Your task to perform on an android device: open app "AliExpress" Image 0: 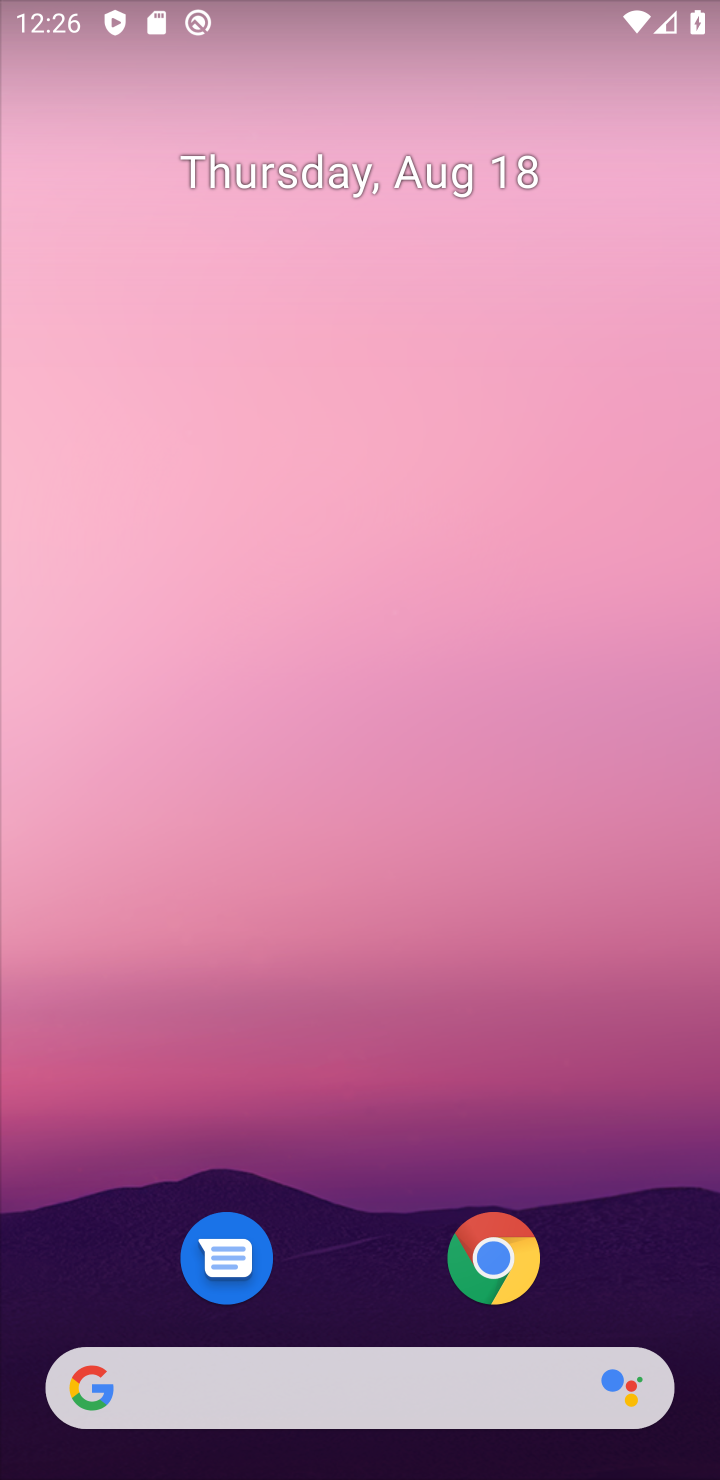
Step 0: drag from (433, 1242) to (424, 760)
Your task to perform on an android device: open app "AliExpress" Image 1: 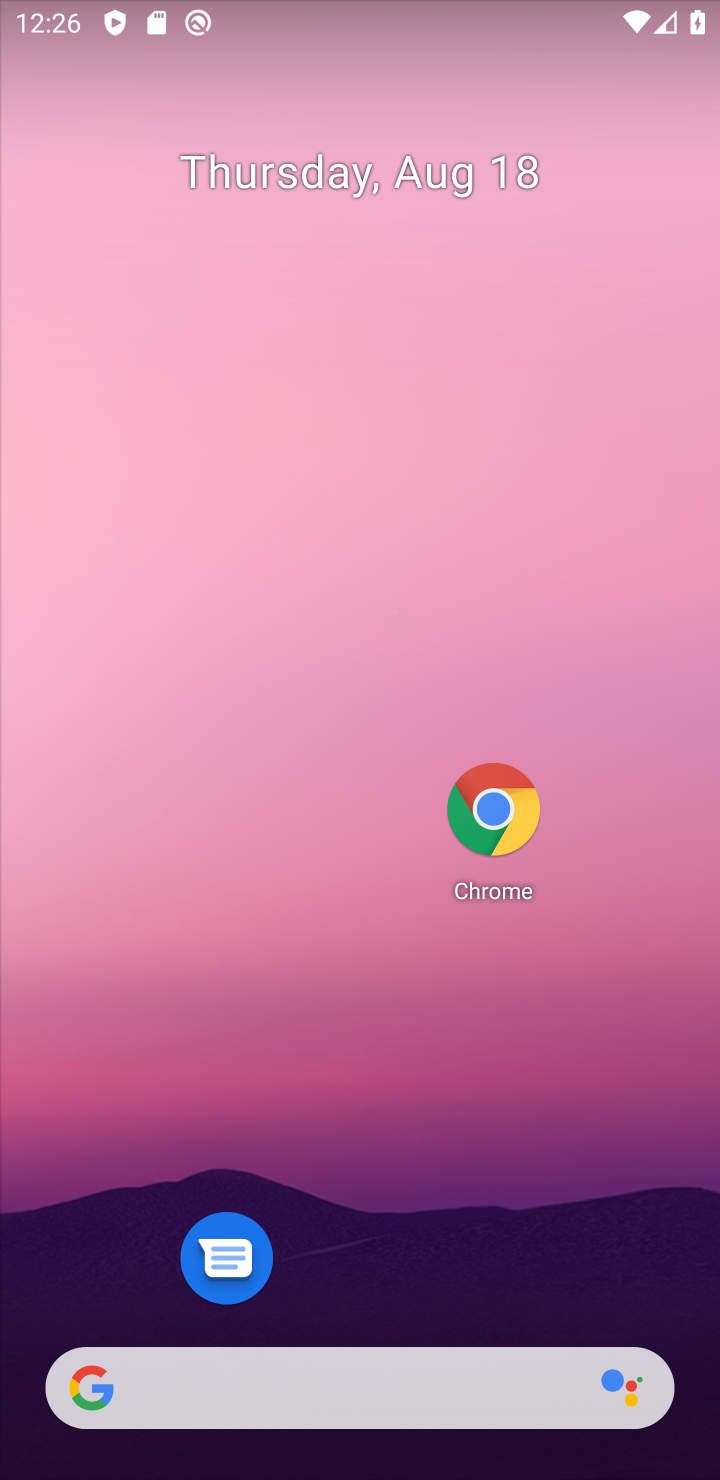
Step 1: drag from (331, 1046) to (352, 532)
Your task to perform on an android device: open app "AliExpress" Image 2: 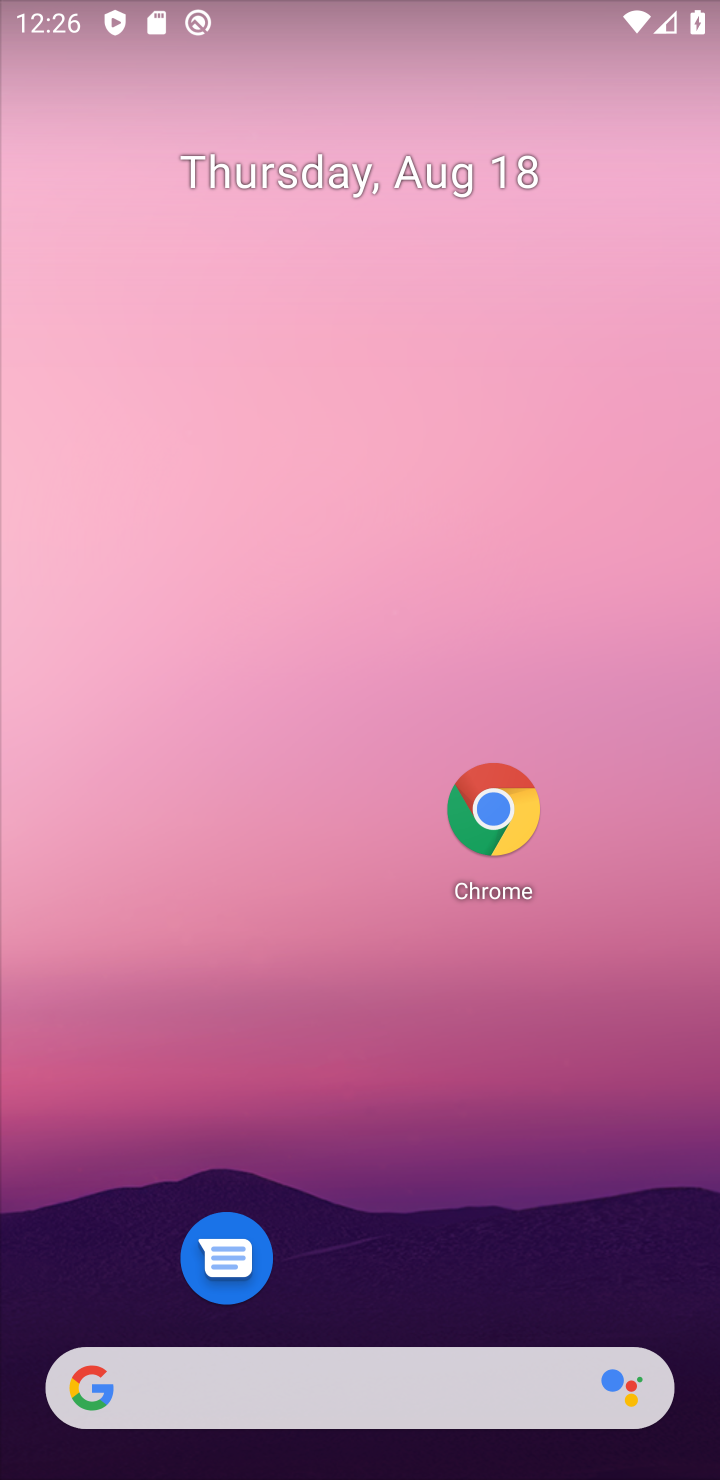
Step 2: drag from (395, 1339) to (261, 630)
Your task to perform on an android device: open app "AliExpress" Image 3: 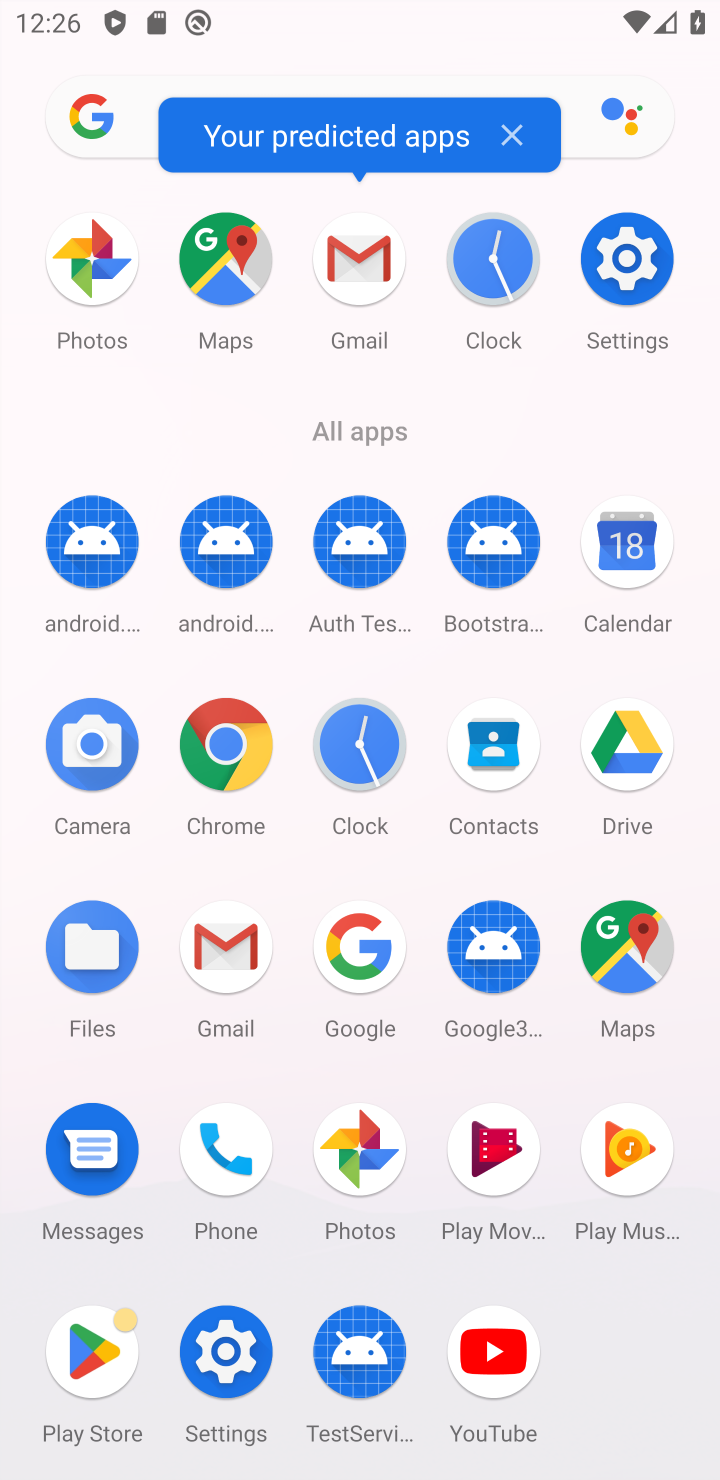
Step 3: click (73, 1352)
Your task to perform on an android device: open app "AliExpress" Image 4: 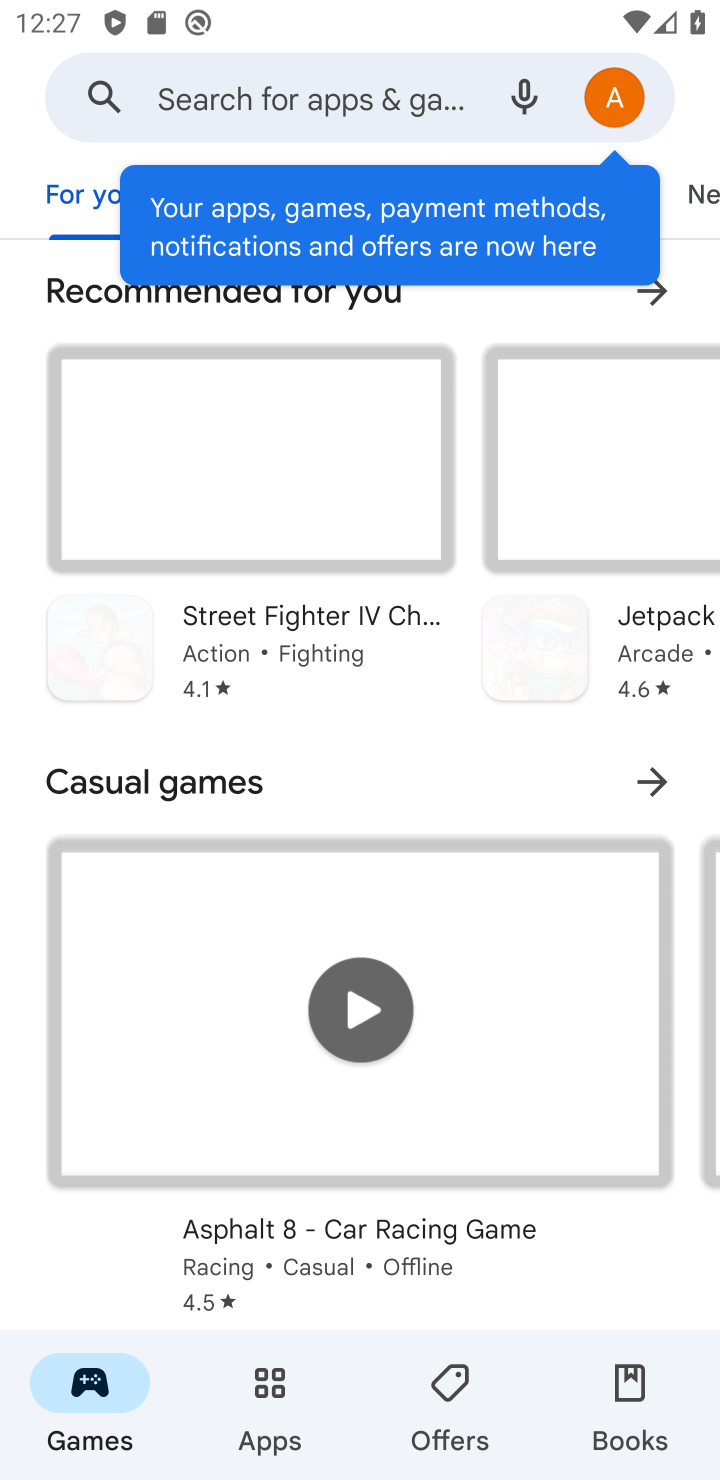
Step 4: click (263, 1374)
Your task to perform on an android device: open app "AliExpress" Image 5: 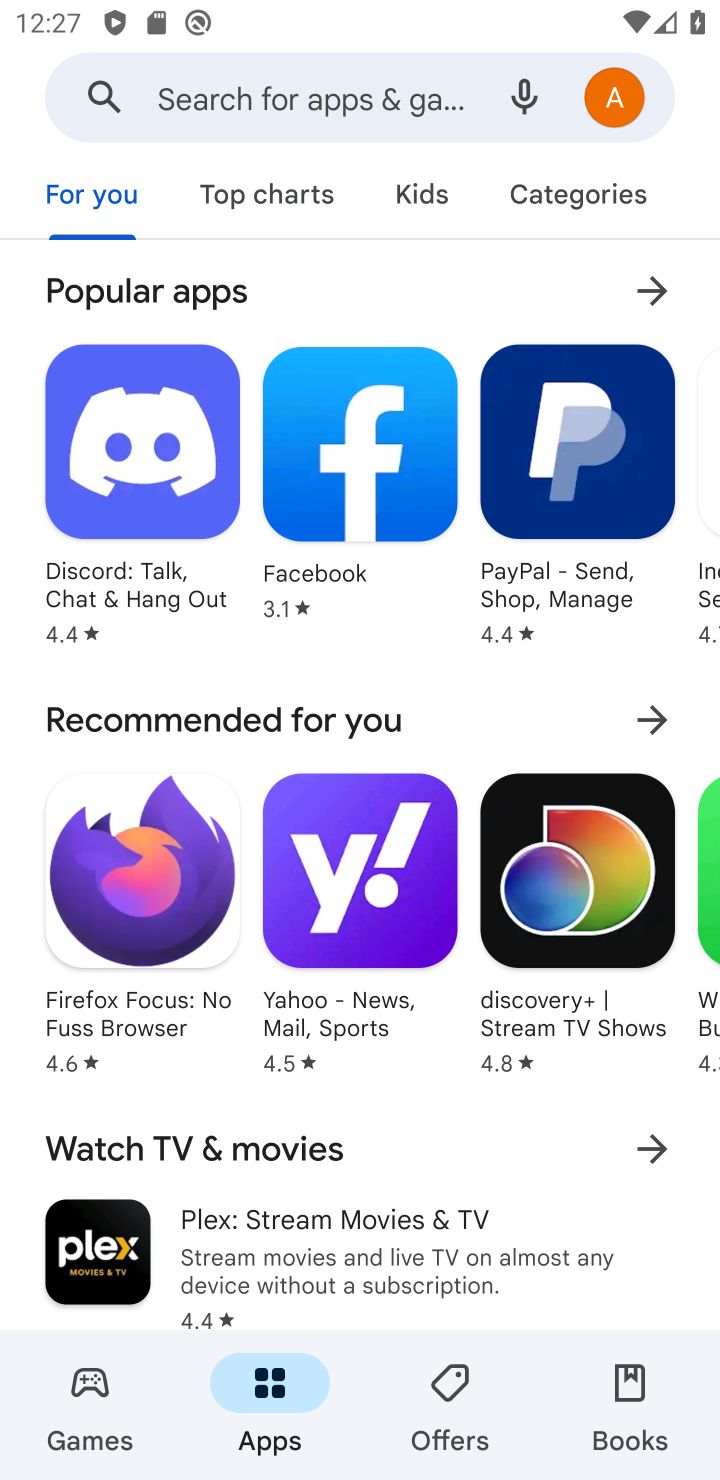
Step 5: click (360, 85)
Your task to perform on an android device: open app "AliExpress" Image 6: 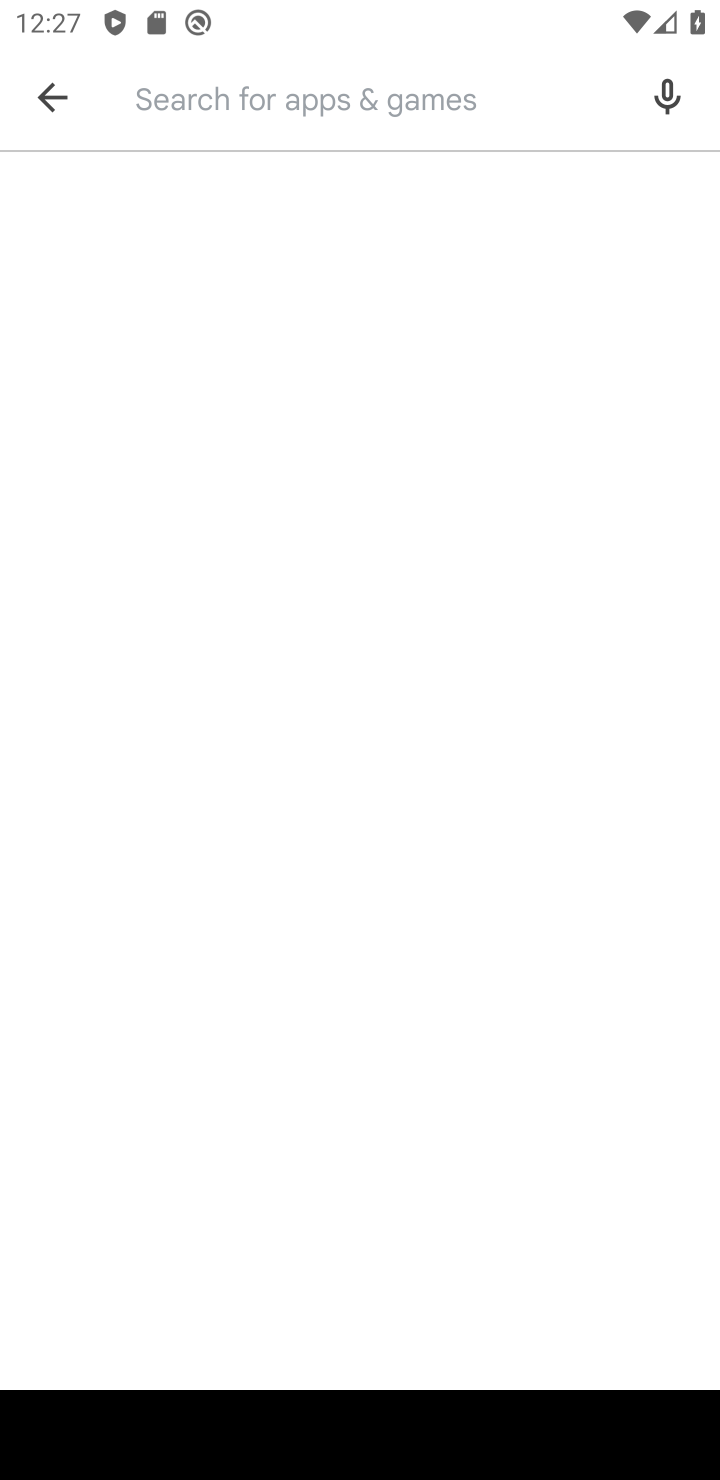
Step 6: type "AliExpress "
Your task to perform on an android device: open app "AliExpress" Image 7: 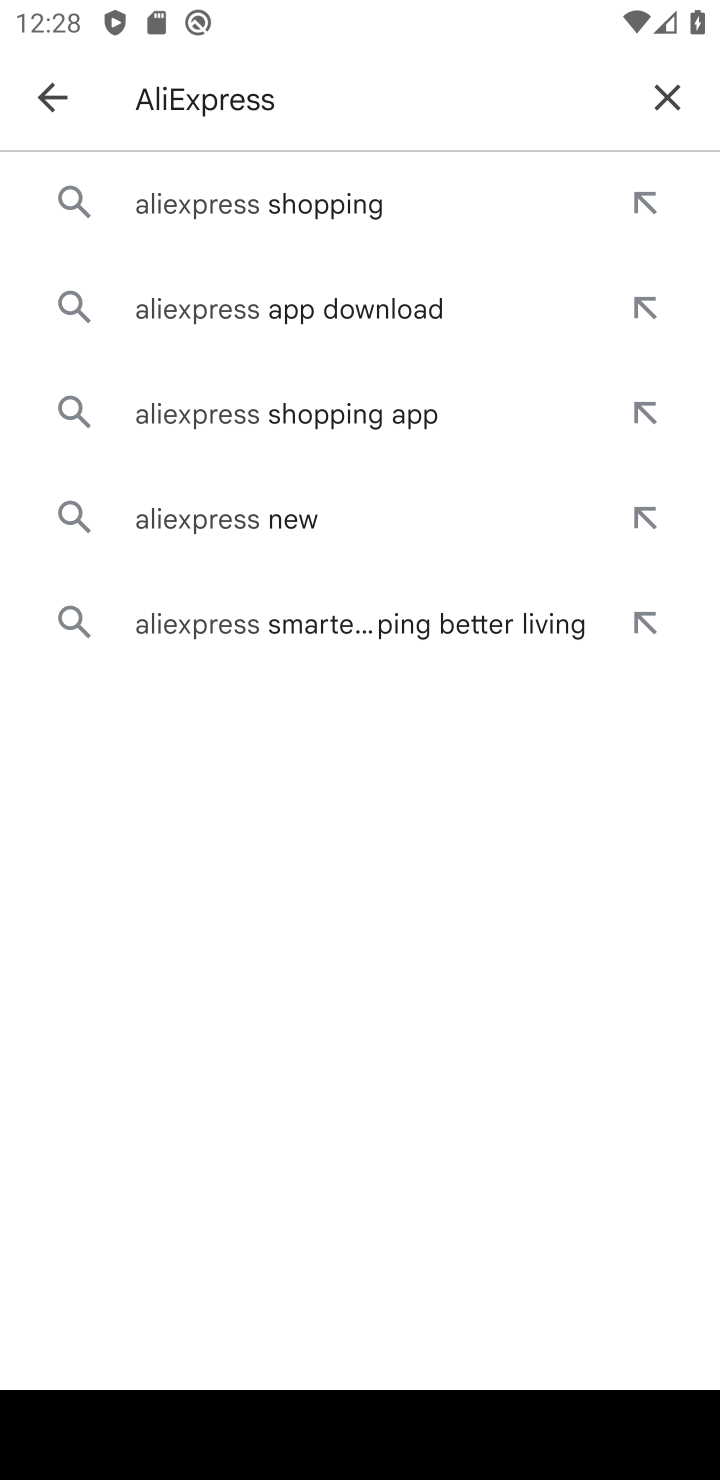
Step 7: click (301, 484)
Your task to perform on an android device: open app "AliExpress" Image 8: 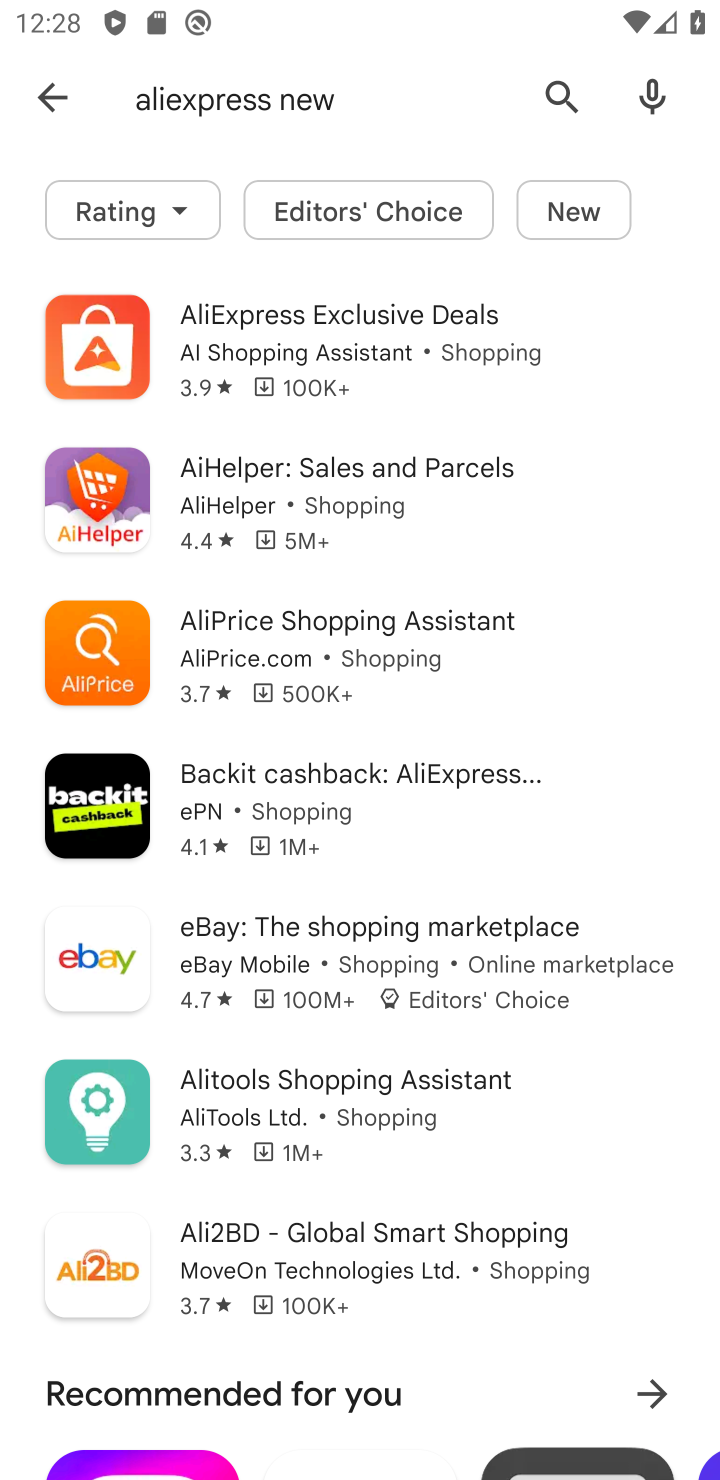
Step 8: click (403, 353)
Your task to perform on an android device: open app "AliExpress" Image 9: 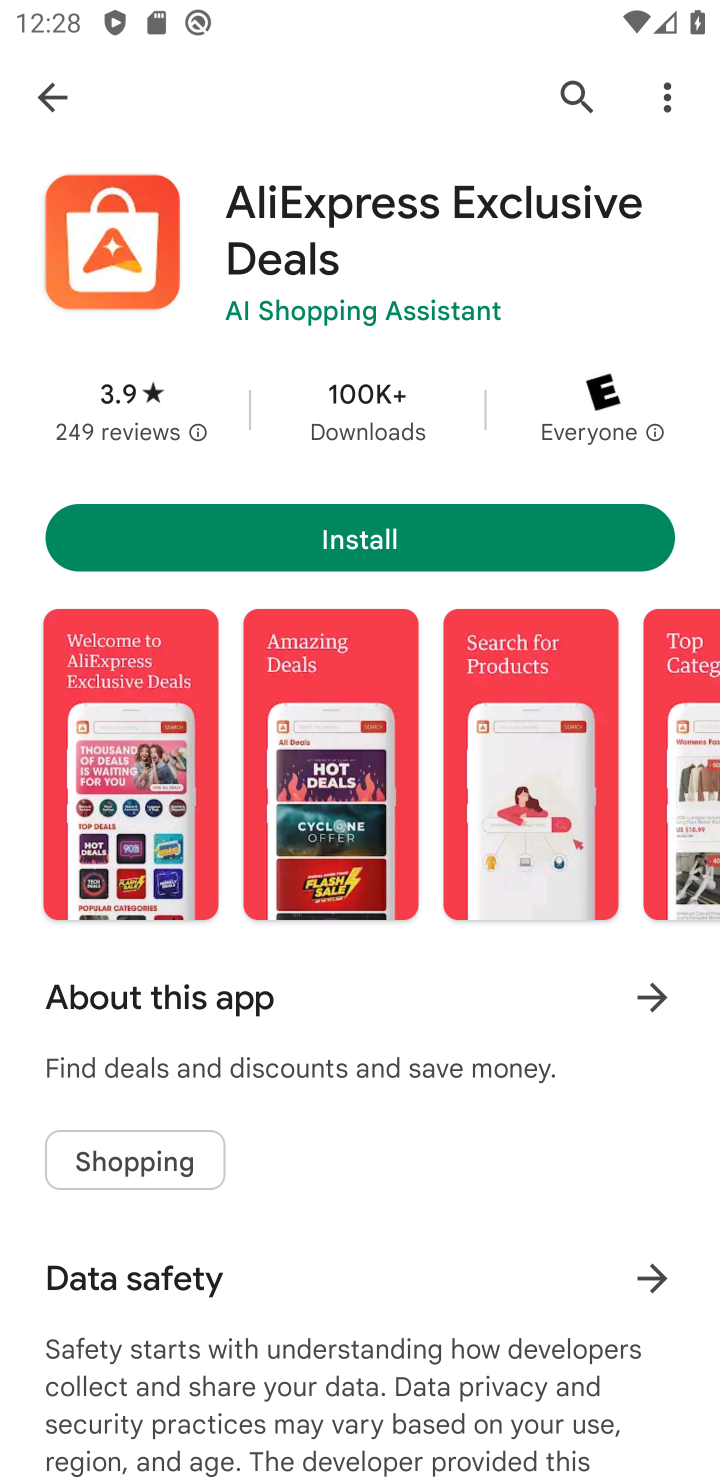
Step 9: click (355, 506)
Your task to perform on an android device: open app "AliExpress" Image 10: 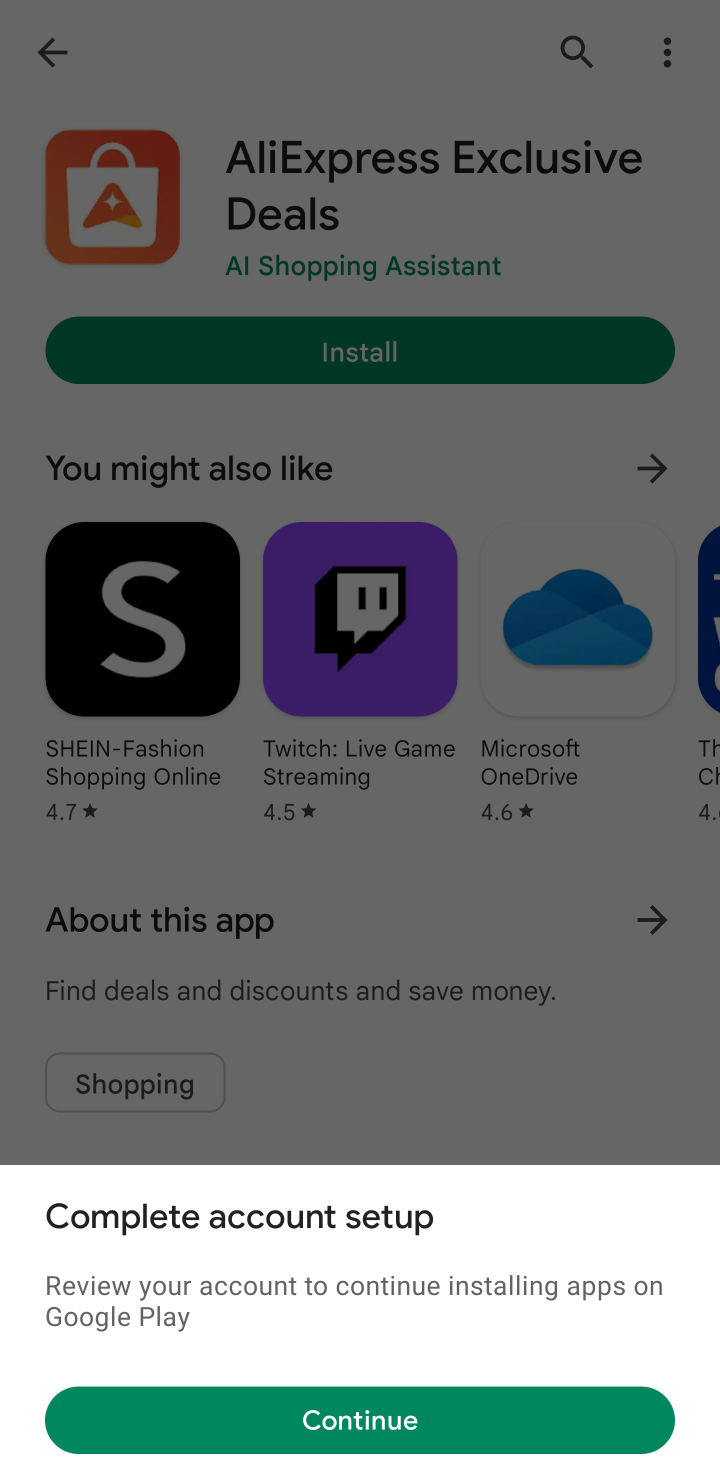
Step 10: task complete